Your task to perform on an android device: Go to network settings Image 0: 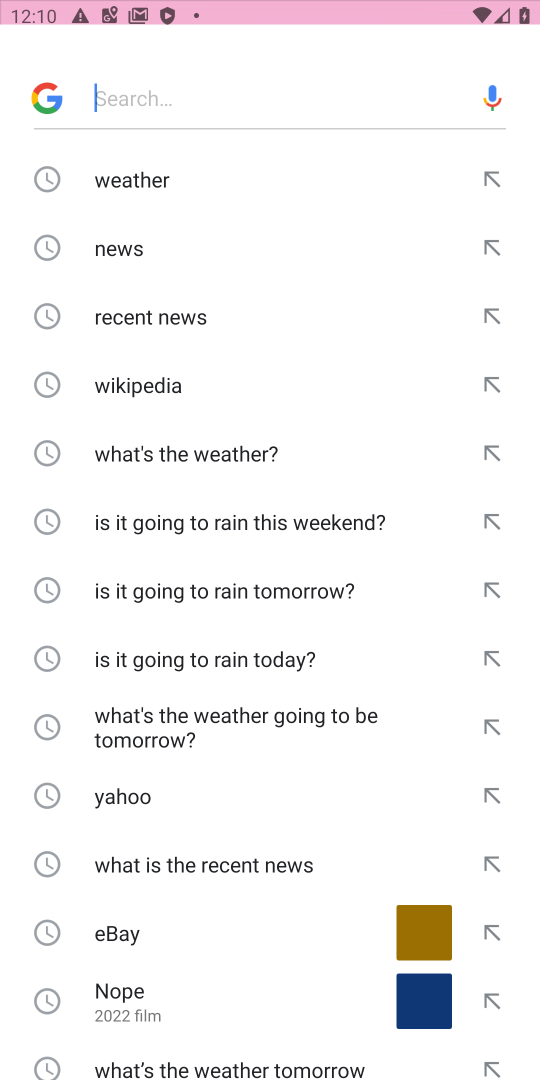
Step 0: press back button
Your task to perform on an android device: Go to network settings Image 1: 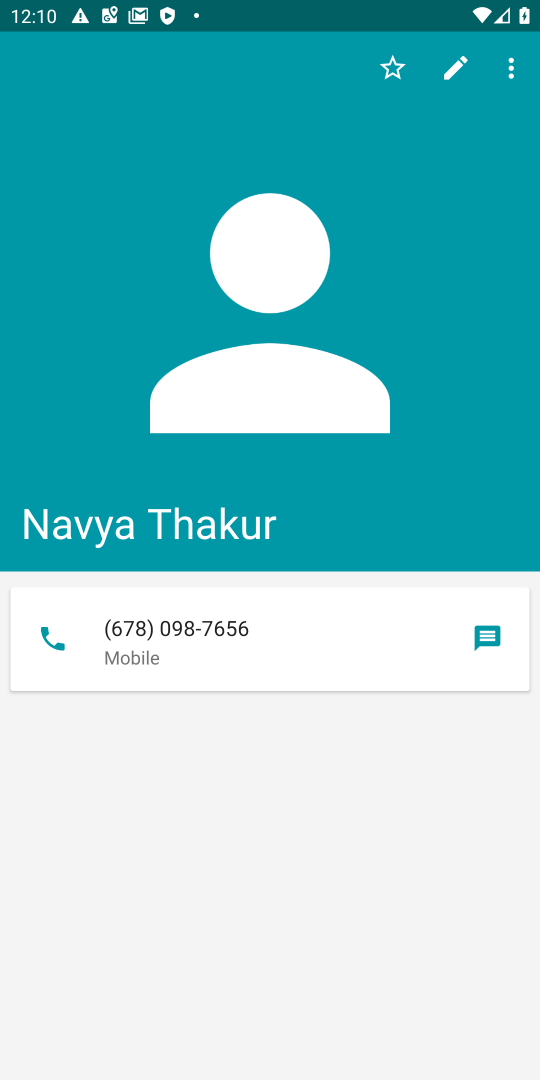
Step 1: press back button
Your task to perform on an android device: Go to network settings Image 2: 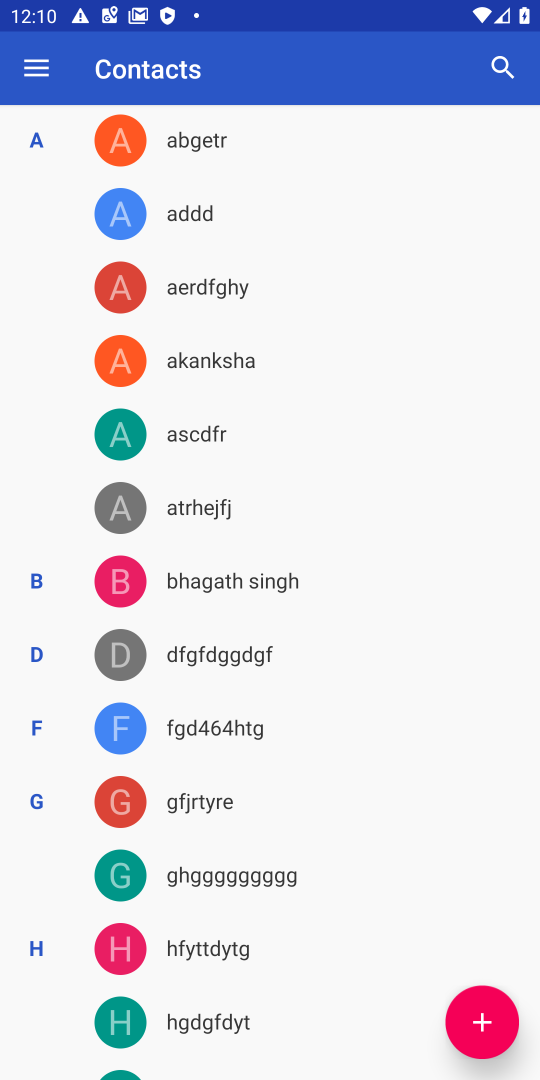
Step 2: press home button
Your task to perform on an android device: Go to network settings Image 3: 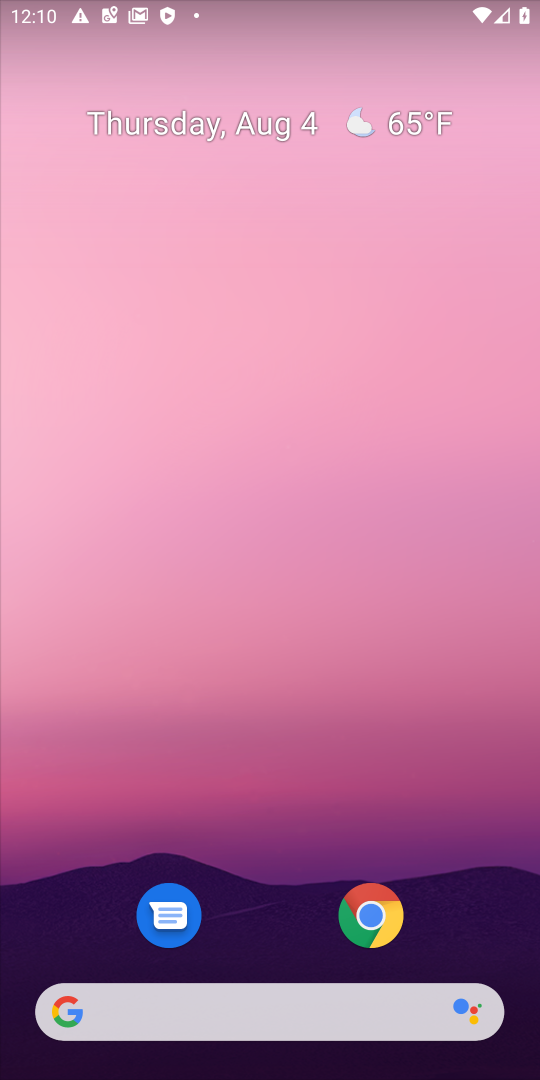
Step 3: drag from (245, 876) to (280, 393)
Your task to perform on an android device: Go to network settings Image 4: 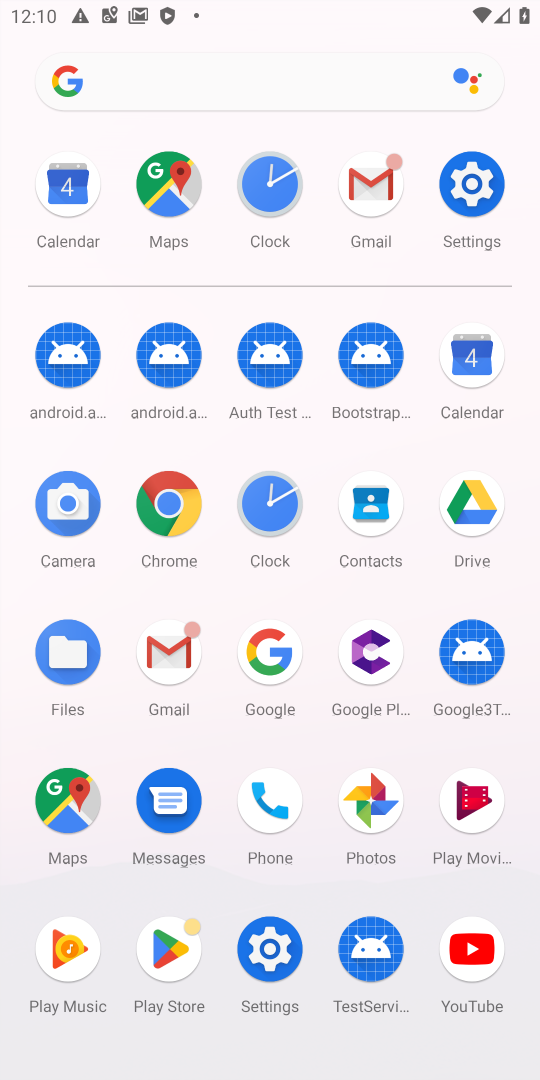
Step 4: click (470, 189)
Your task to perform on an android device: Go to network settings Image 5: 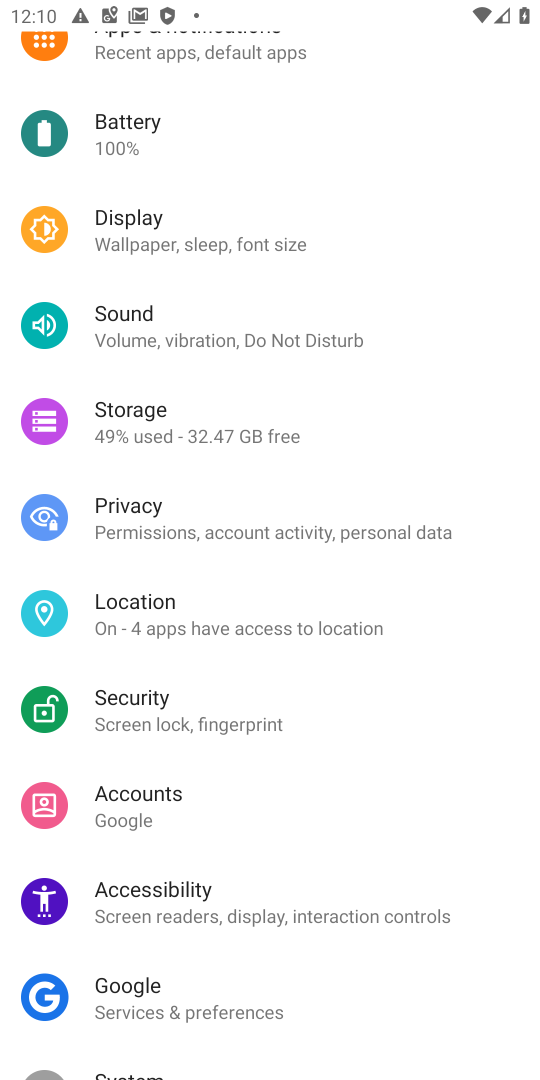
Step 5: drag from (143, 204) to (72, 1030)
Your task to perform on an android device: Go to network settings Image 6: 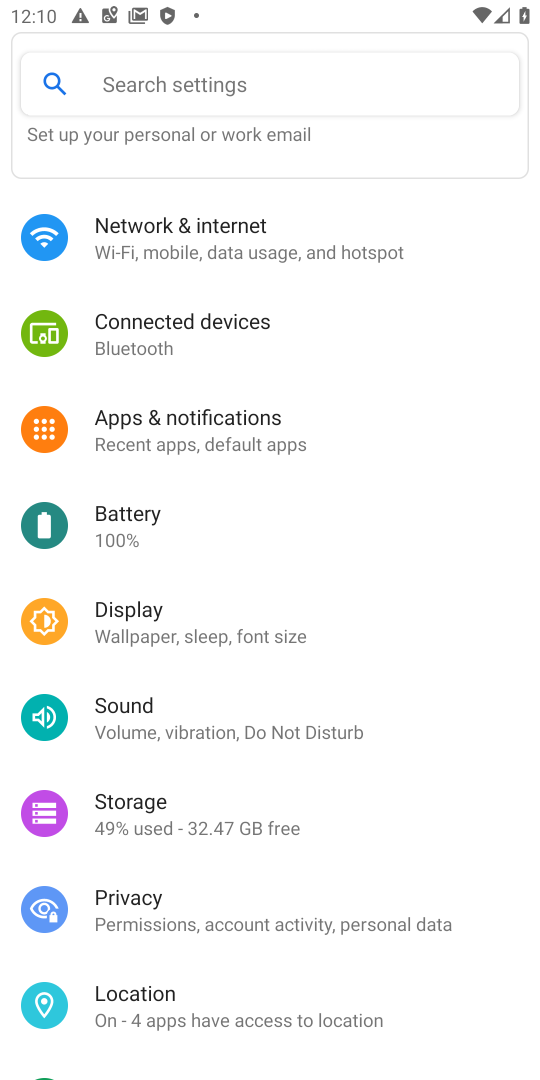
Step 6: click (201, 246)
Your task to perform on an android device: Go to network settings Image 7: 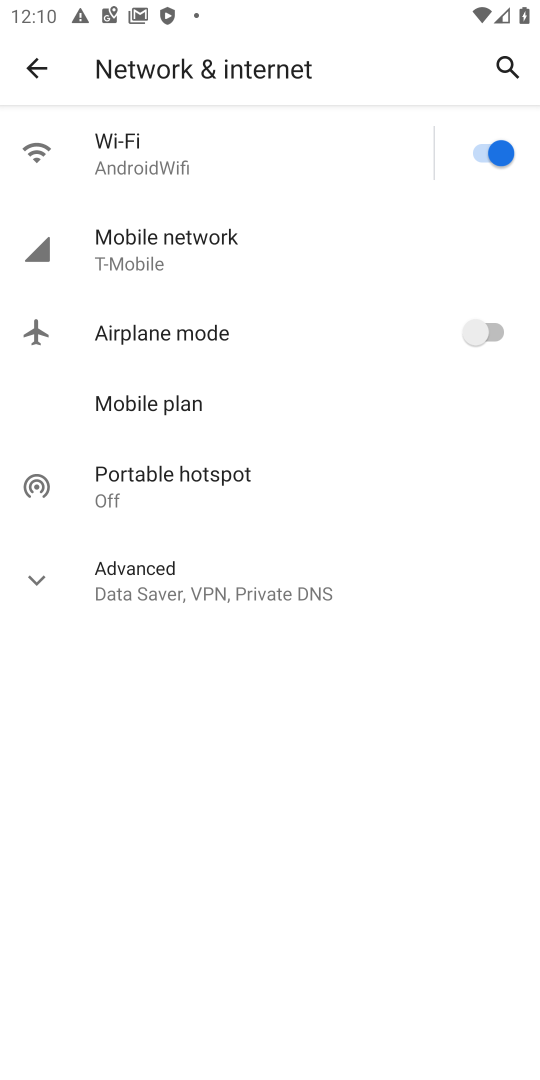
Step 7: task complete